Your task to perform on an android device: Open the Play Movies app and select the watchlist tab. Image 0: 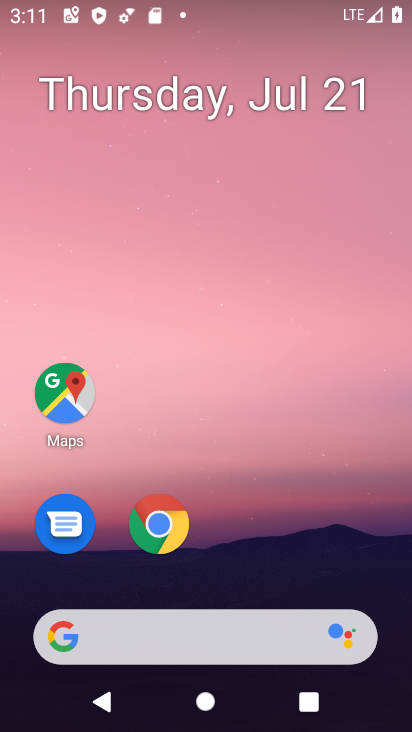
Step 0: drag from (264, 559) to (291, 36)
Your task to perform on an android device: Open the Play Movies app and select the watchlist tab. Image 1: 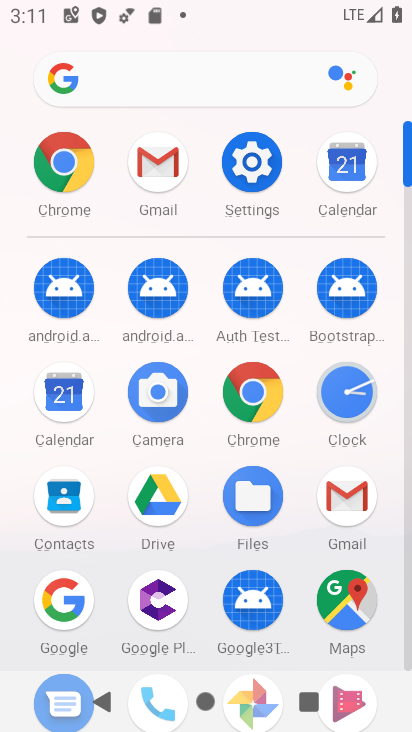
Step 1: drag from (205, 465) to (197, 106)
Your task to perform on an android device: Open the Play Movies app and select the watchlist tab. Image 2: 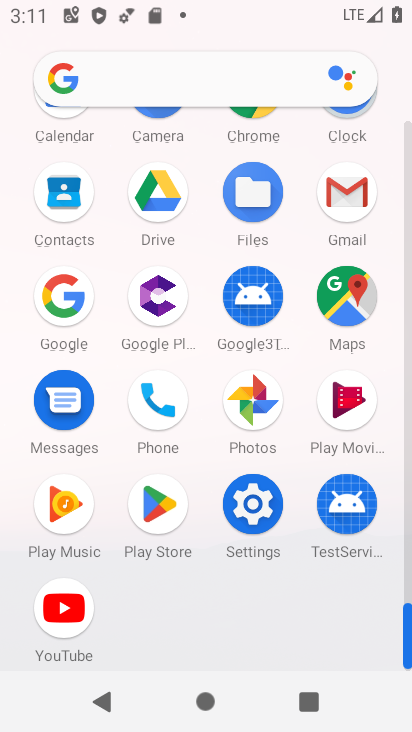
Step 2: click (337, 397)
Your task to perform on an android device: Open the Play Movies app and select the watchlist tab. Image 3: 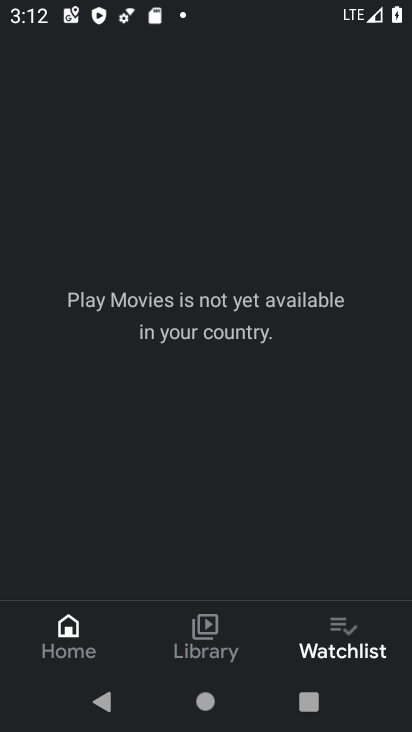
Step 3: task complete